Your task to perform on an android device: turn off improve location accuracy Image 0: 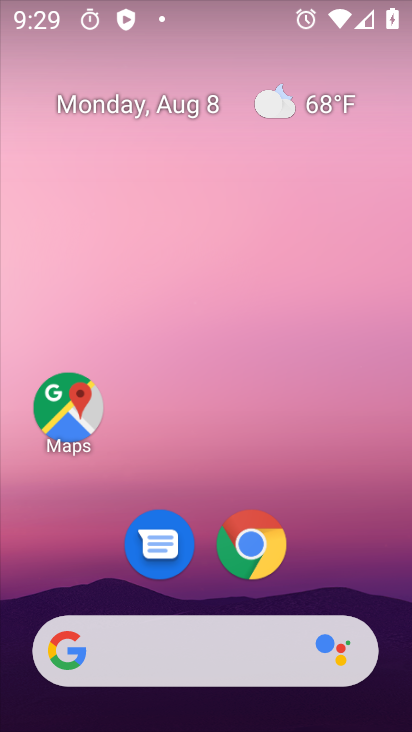
Step 0: drag from (209, 411) to (207, 95)
Your task to perform on an android device: turn off improve location accuracy Image 1: 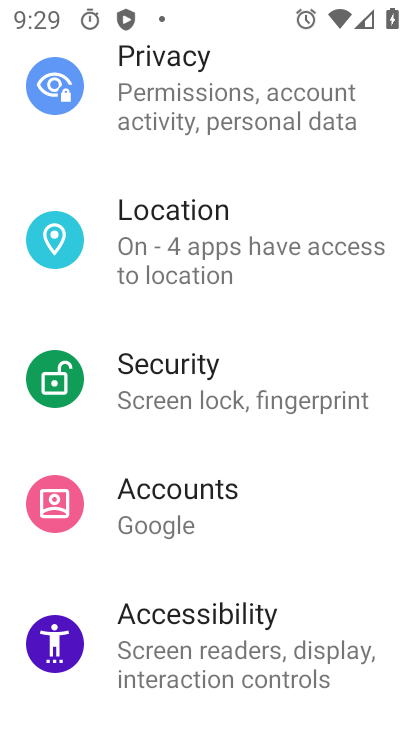
Step 1: click (158, 259)
Your task to perform on an android device: turn off improve location accuracy Image 2: 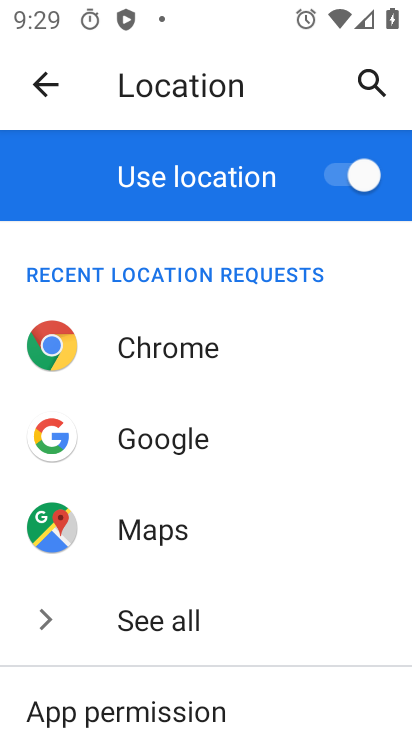
Step 2: drag from (239, 682) to (271, 179)
Your task to perform on an android device: turn off improve location accuracy Image 3: 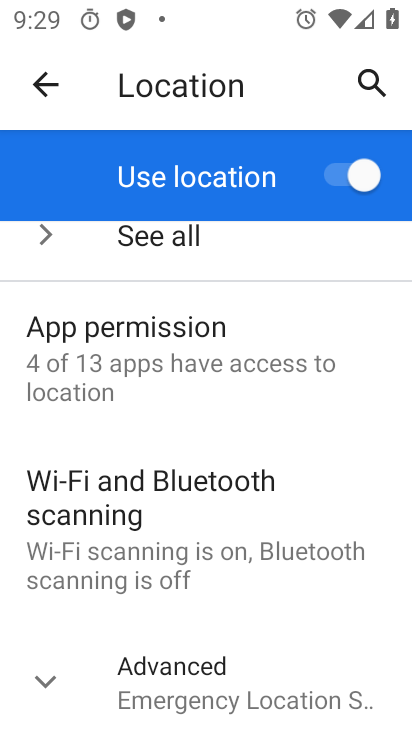
Step 3: click (39, 675)
Your task to perform on an android device: turn off improve location accuracy Image 4: 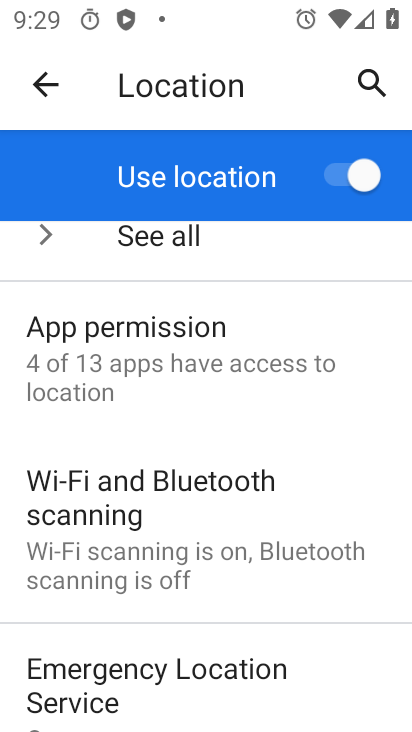
Step 4: drag from (237, 679) to (269, 267)
Your task to perform on an android device: turn off improve location accuracy Image 5: 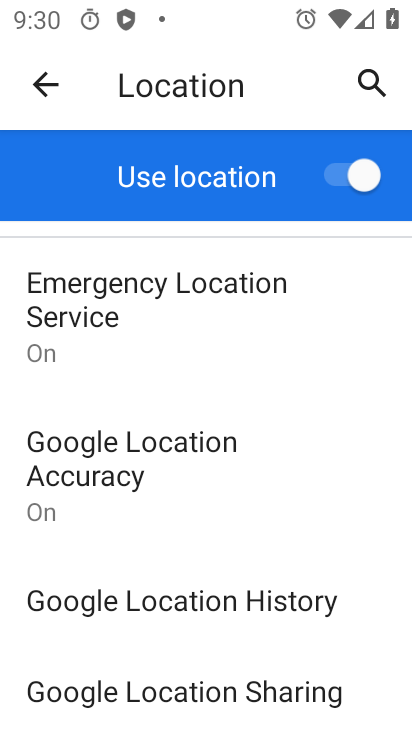
Step 5: click (175, 458)
Your task to perform on an android device: turn off improve location accuracy Image 6: 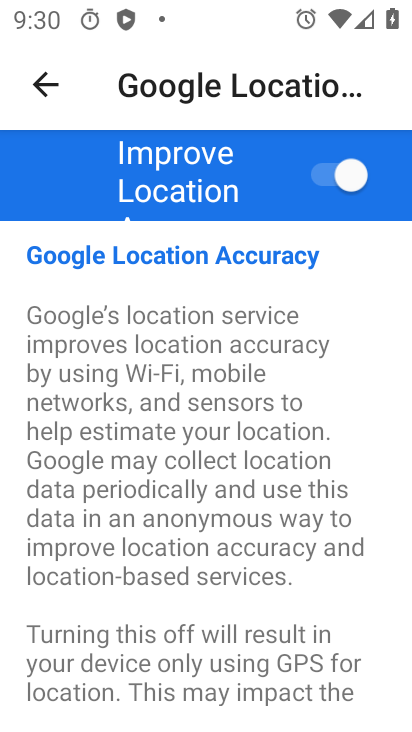
Step 6: drag from (231, 655) to (250, 386)
Your task to perform on an android device: turn off improve location accuracy Image 7: 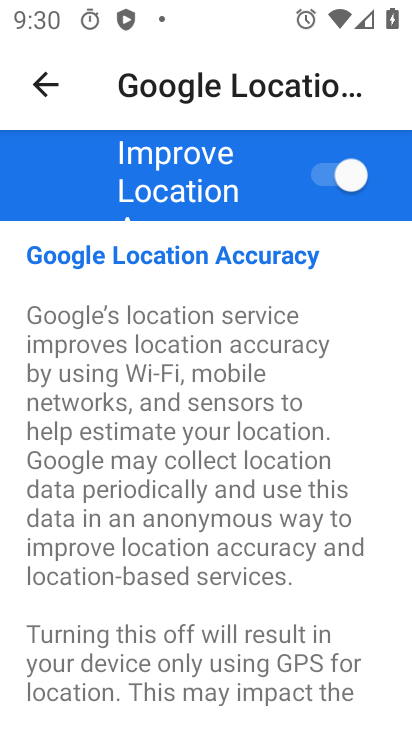
Step 7: click (324, 179)
Your task to perform on an android device: turn off improve location accuracy Image 8: 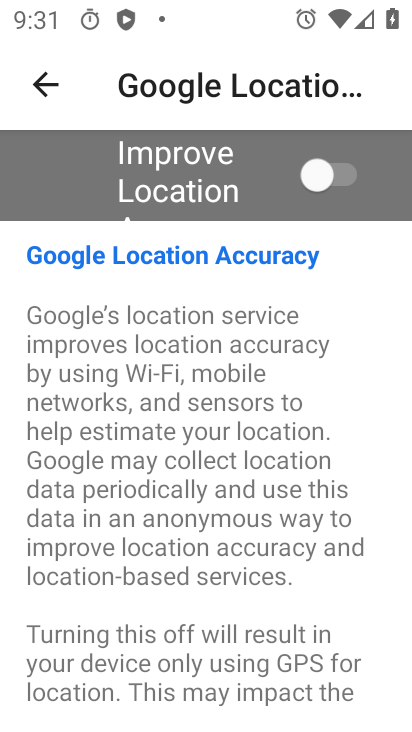
Step 8: task complete